Your task to perform on an android device: Go to Amazon Image 0: 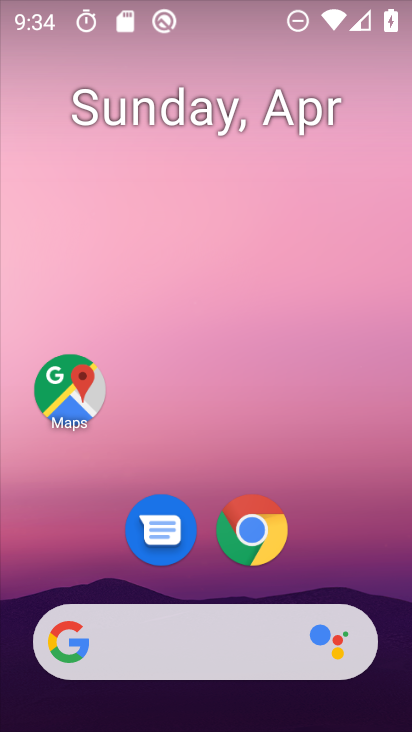
Step 0: click (255, 534)
Your task to perform on an android device: Go to Amazon Image 1: 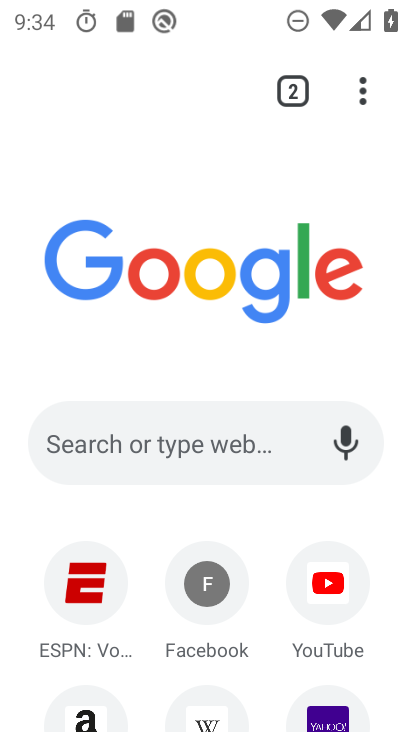
Step 1: drag from (401, 582) to (392, 415)
Your task to perform on an android device: Go to Amazon Image 2: 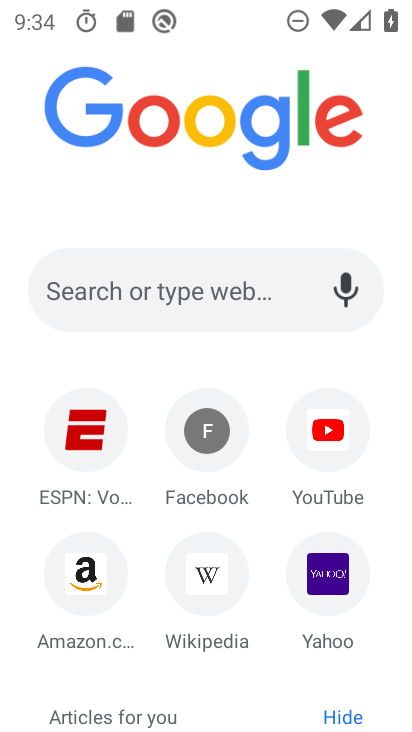
Step 2: click (78, 571)
Your task to perform on an android device: Go to Amazon Image 3: 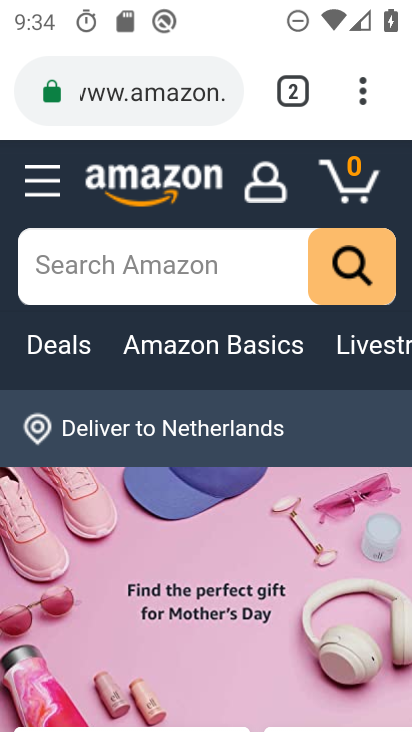
Step 3: task complete